Your task to perform on an android device: toggle javascript in the chrome app Image 0: 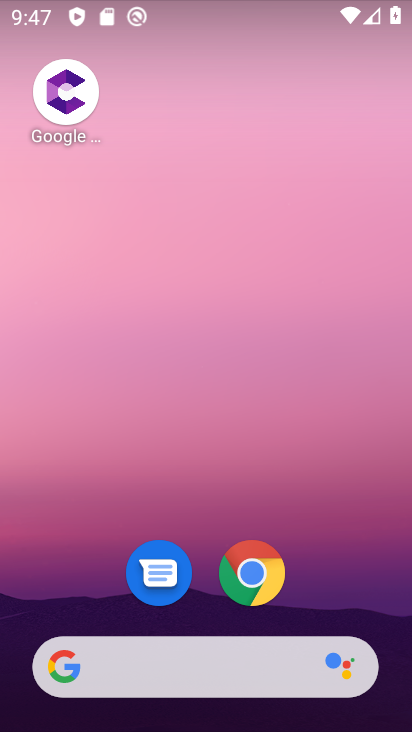
Step 0: click (244, 571)
Your task to perform on an android device: toggle javascript in the chrome app Image 1: 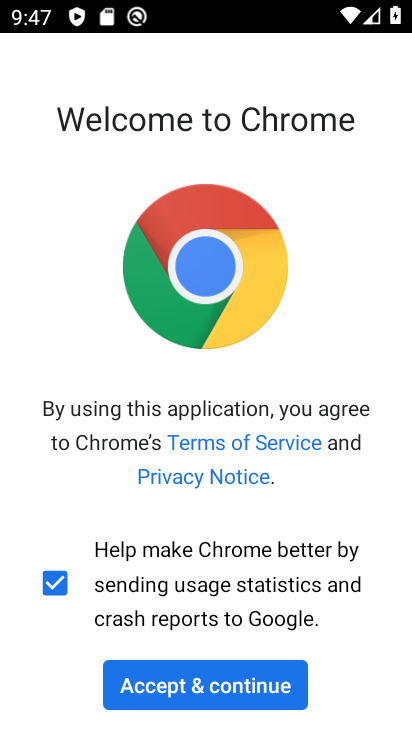
Step 1: click (194, 697)
Your task to perform on an android device: toggle javascript in the chrome app Image 2: 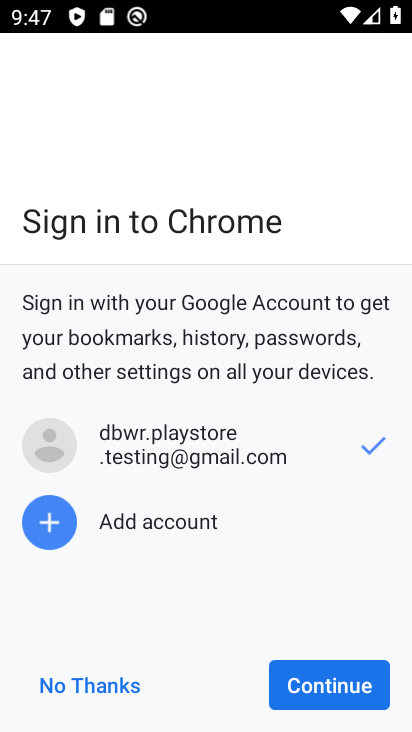
Step 2: click (201, 682)
Your task to perform on an android device: toggle javascript in the chrome app Image 3: 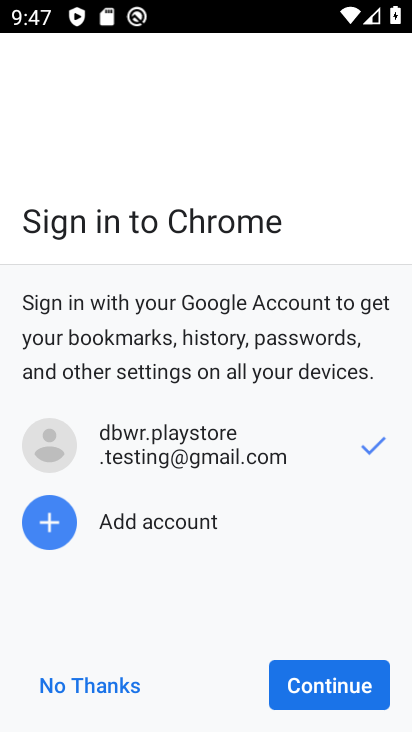
Step 3: click (298, 692)
Your task to perform on an android device: toggle javascript in the chrome app Image 4: 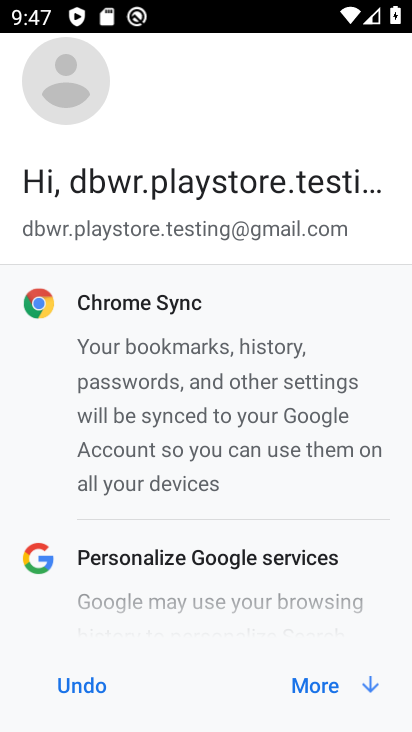
Step 4: click (306, 682)
Your task to perform on an android device: toggle javascript in the chrome app Image 5: 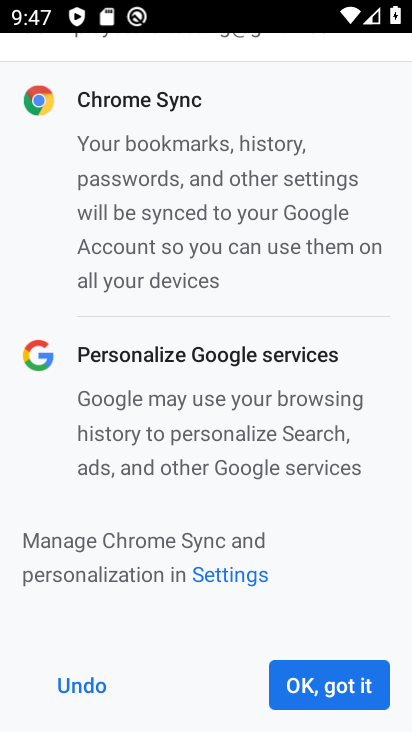
Step 5: click (306, 682)
Your task to perform on an android device: toggle javascript in the chrome app Image 6: 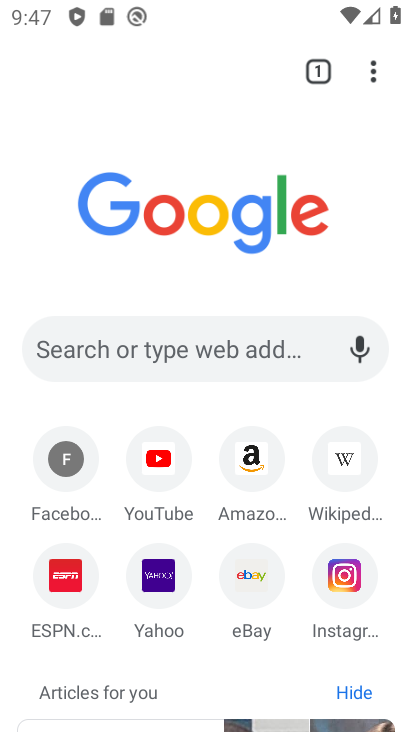
Step 6: drag from (376, 64) to (140, 602)
Your task to perform on an android device: toggle javascript in the chrome app Image 7: 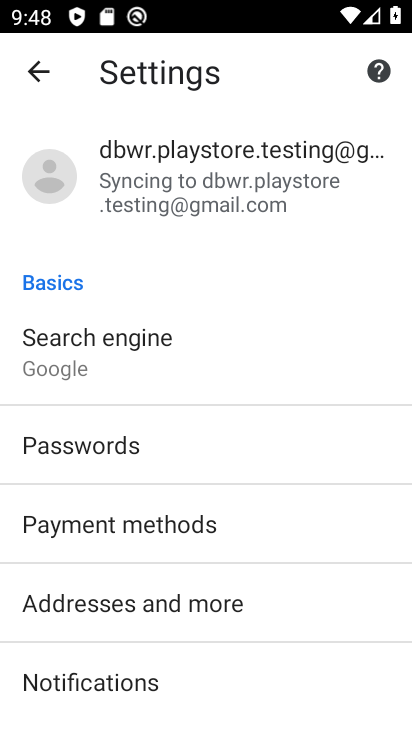
Step 7: drag from (263, 612) to (259, 197)
Your task to perform on an android device: toggle javascript in the chrome app Image 8: 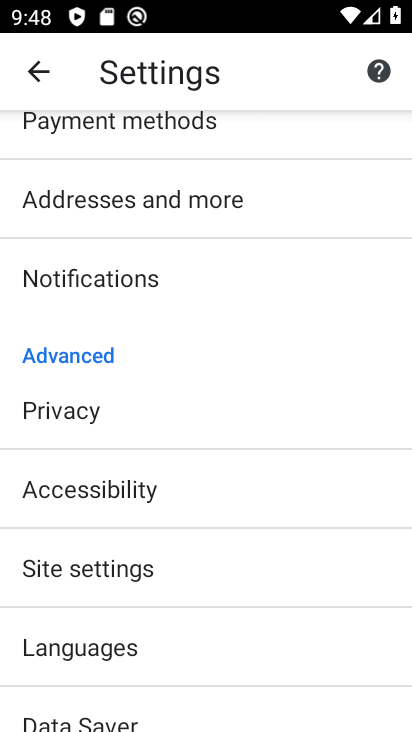
Step 8: drag from (144, 586) to (186, 382)
Your task to perform on an android device: toggle javascript in the chrome app Image 9: 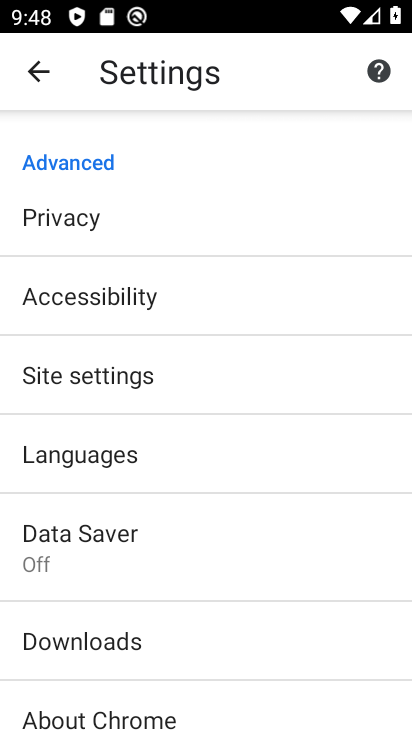
Step 9: click (93, 373)
Your task to perform on an android device: toggle javascript in the chrome app Image 10: 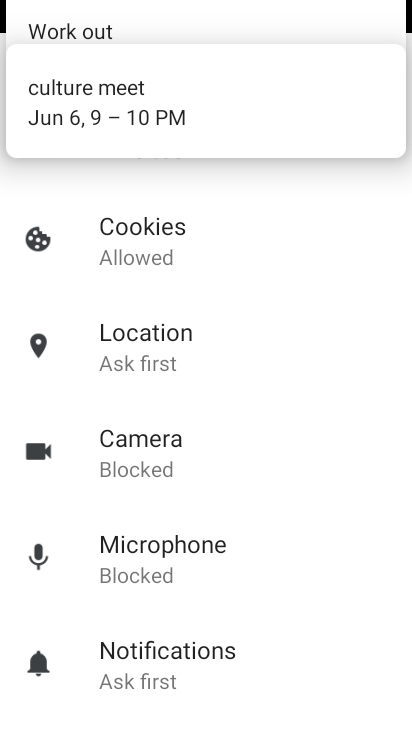
Step 10: drag from (232, 643) to (289, 374)
Your task to perform on an android device: toggle javascript in the chrome app Image 11: 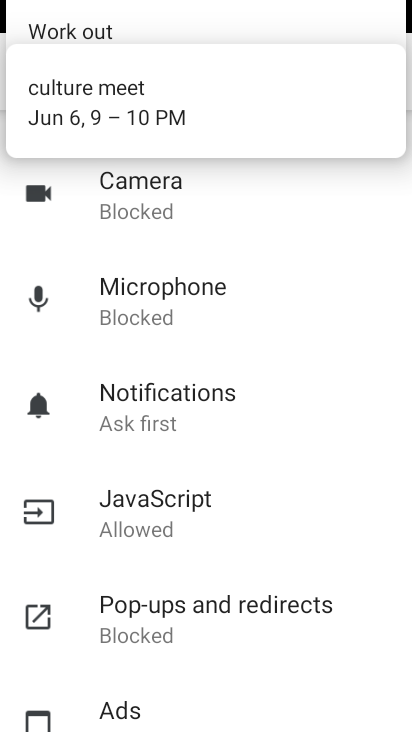
Step 11: click (144, 512)
Your task to perform on an android device: toggle javascript in the chrome app Image 12: 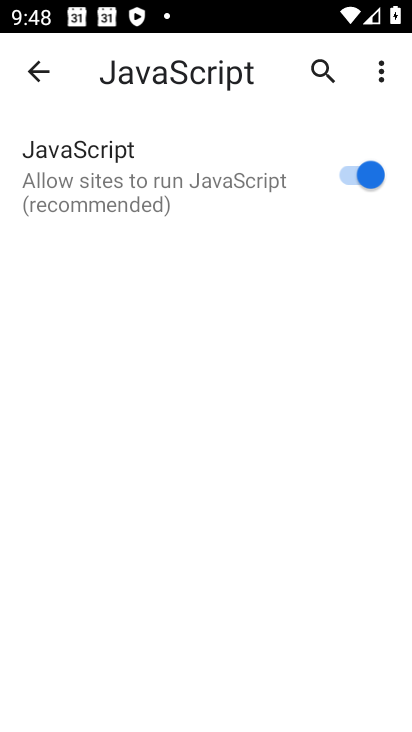
Step 12: click (363, 176)
Your task to perform on an android device: toggle javascript in the chrome app Image 13: 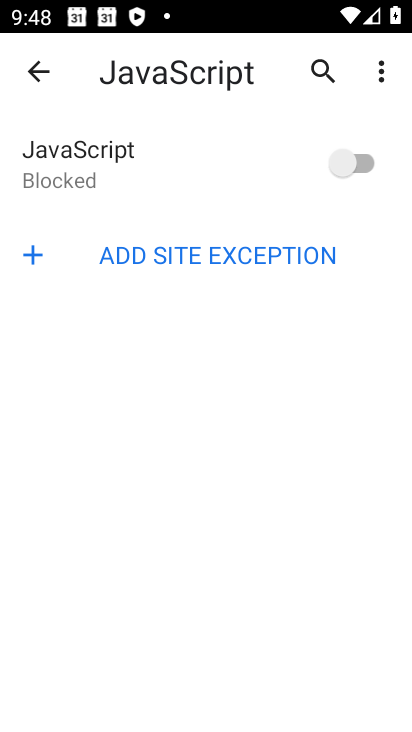
Step 13: task complete